Your task to perform on an android device: set default search engine in the chrome app Image 0: 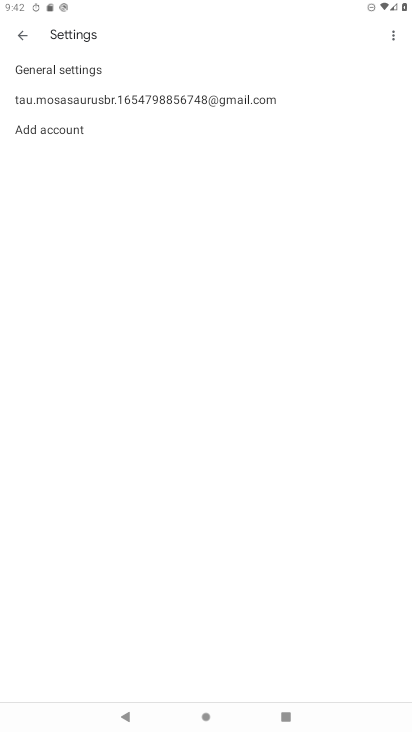
Step 0: press home button
Your task to perform on an android device: set default search engine in the chrome app Image 1: 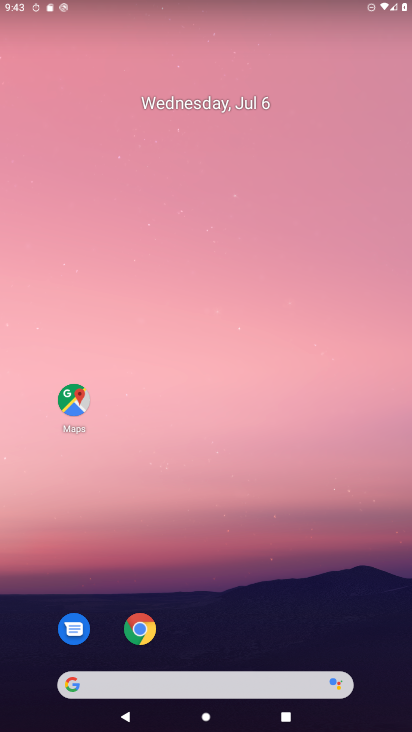
Step 1: click (138, 628)
Your task to perform on an android device: set default search engine in the chrome app Image 2: 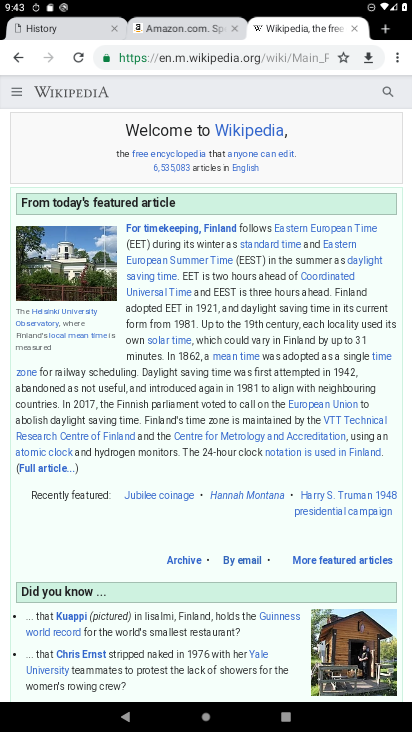
Step 2: click (398, 60)
Your task to perform on an android device: set default search engine in the chrome app Image 3: 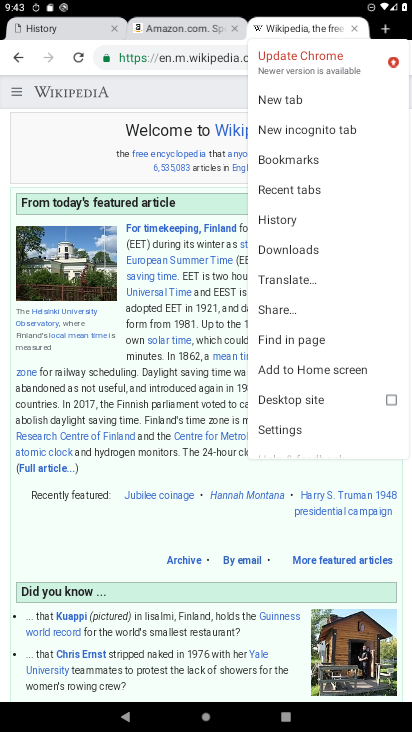
Step 3: click (274, 429)
Your task to perform on an android device: set default search engine in the chrome app Image 4: 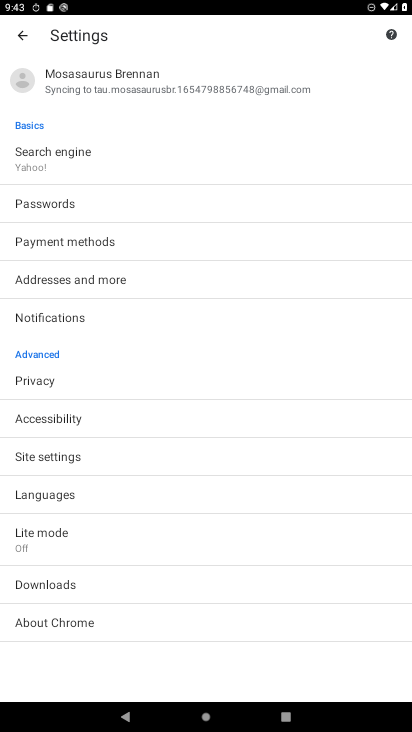
Step 4: click (38, 158)
Your task to perform on an android device: set default search engine in the chrome app Image 5: 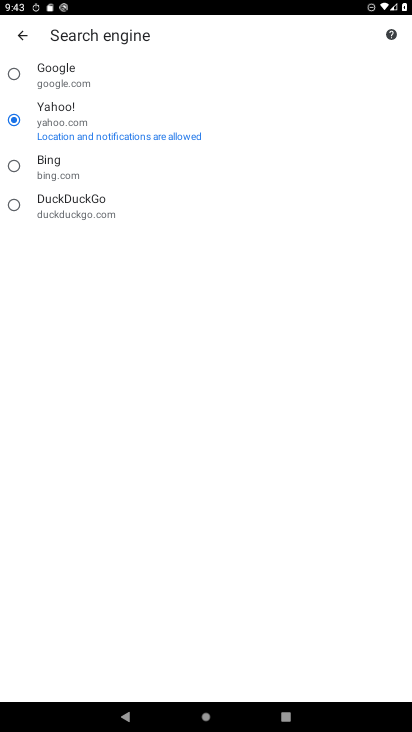
Step 5: click (14, 166)
Your task to perform on an android device: set default search engine in the chrome app Image 6: 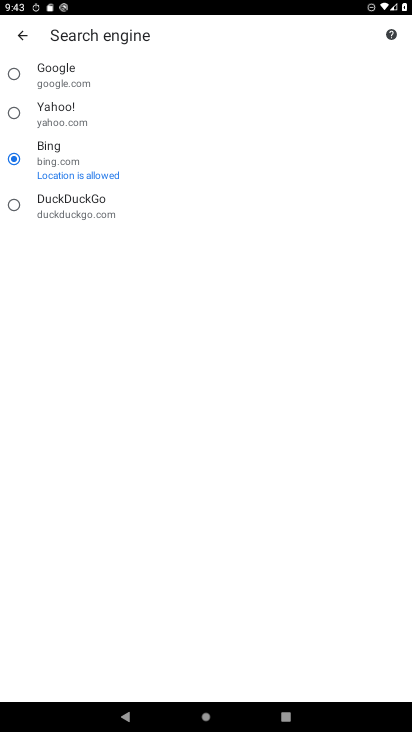
Step 6: task complete